Your task to perform on an android device: Go to eBay Image 0: 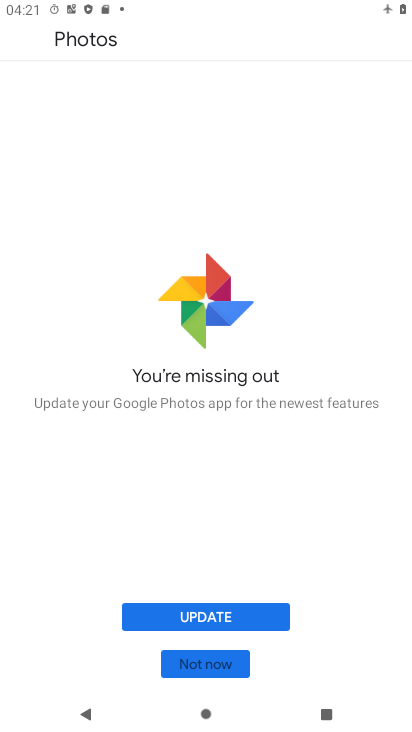
Step 0: press home button
Your task to perform on an android device: Go to eBay Image 1: 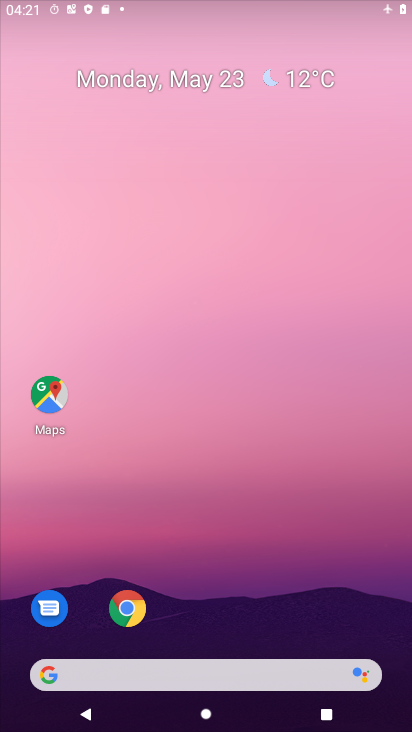
Step 1: click (136, 602)
Your task to perform on an android device: Go to eBay Image 2: 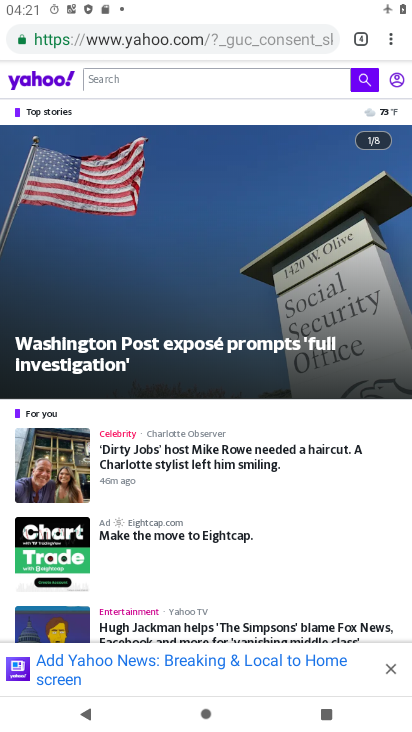
Step 2: click (355, 33)
Your task to perform on an android device: Go to eBay Image 3: 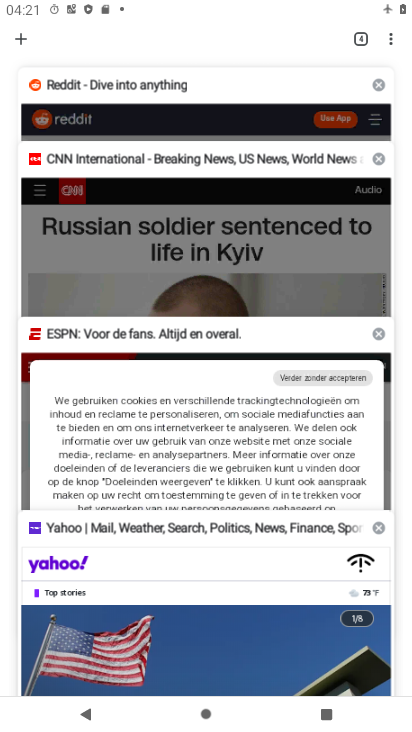
Step 3: click (22, 35)
Your task to perform on an android device: Go to eBay Image 4: 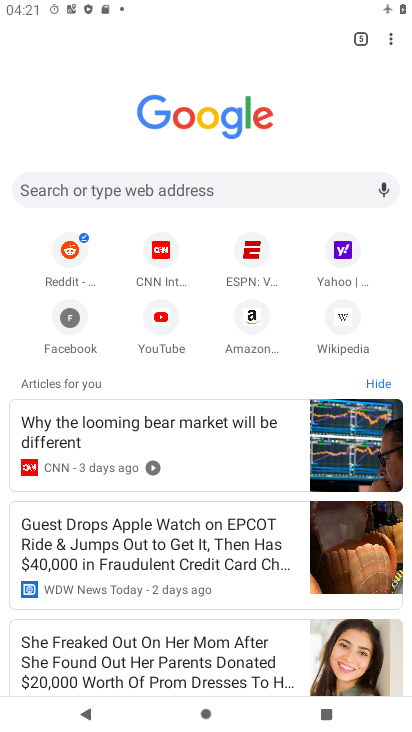
Step 4: click (214, 186)
Your task to perform on an android device: Go to eBay Image 5: 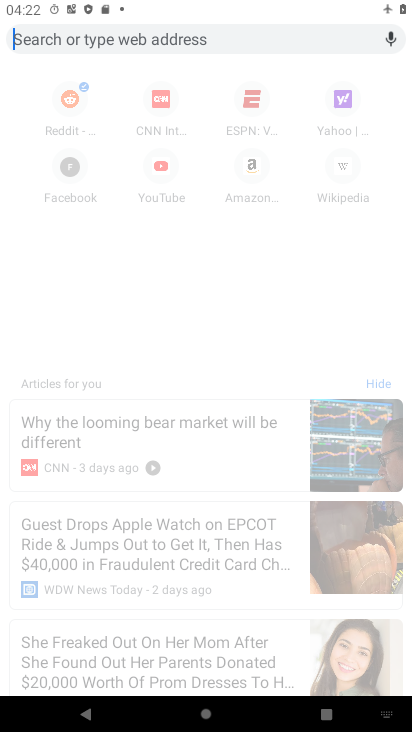
Step 5: type "eBay"
Your task to perform on an android device: Go to eBay Image 6: 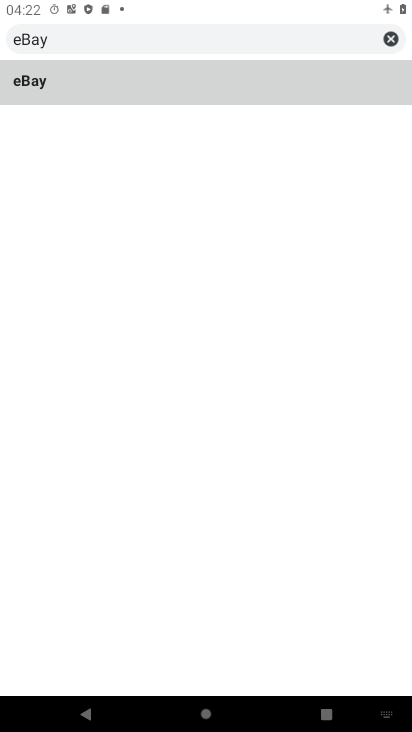
Step 6: click (75, 75)
Your task to perform on an android device: Go to eBay Image 7: 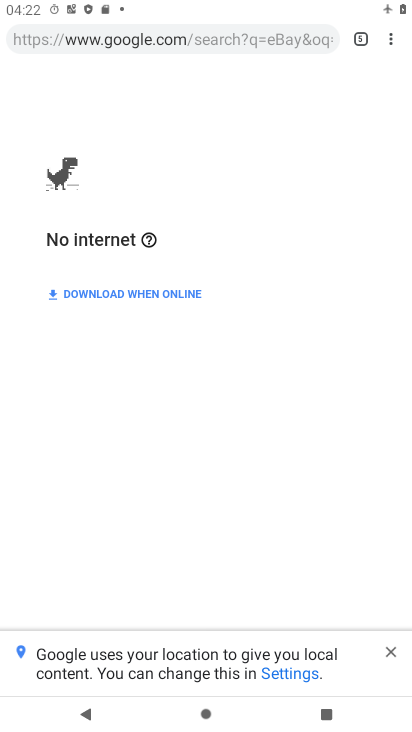
Step 7: task complete